Your task to perform on an android device: star an email in the gmail app Image 0: 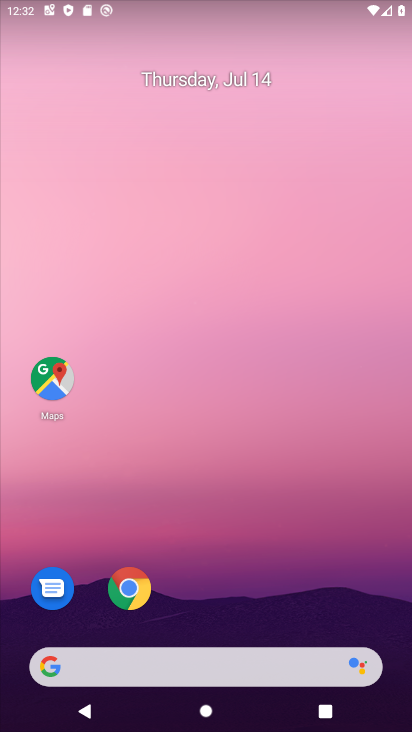
Step 0: drag from (193, 631) to (228, 138)
Your task to perform on an android device: star an email in the gmail app Image 1: 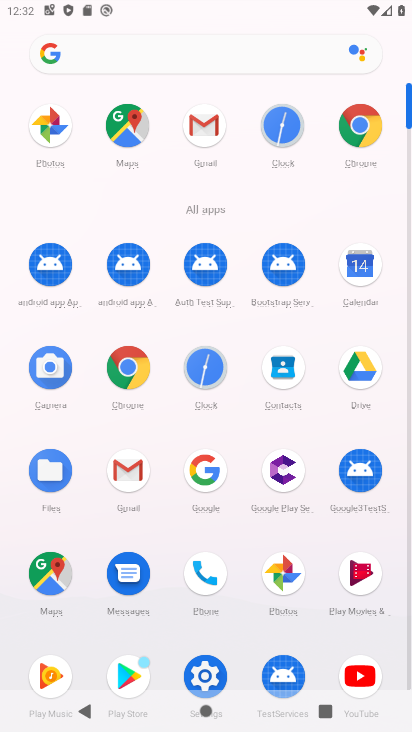
Step 1: click (122, 469)
Your task to perform on an android device: star an email in the gmail app Image 2: 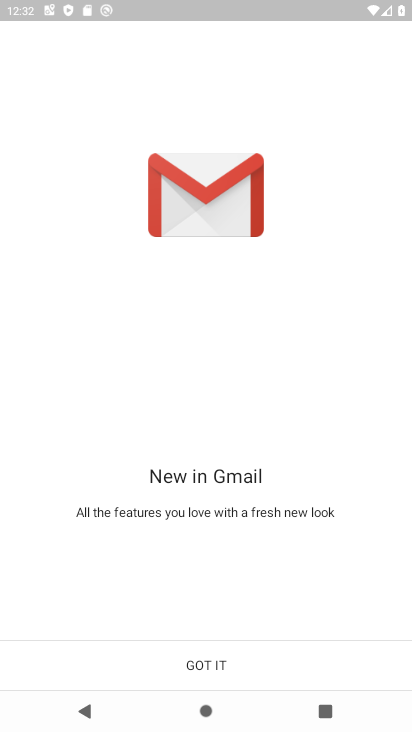
Step 2: click (237, 648)
Your task to perform on an android device: star an email in the gmail app Image 3: 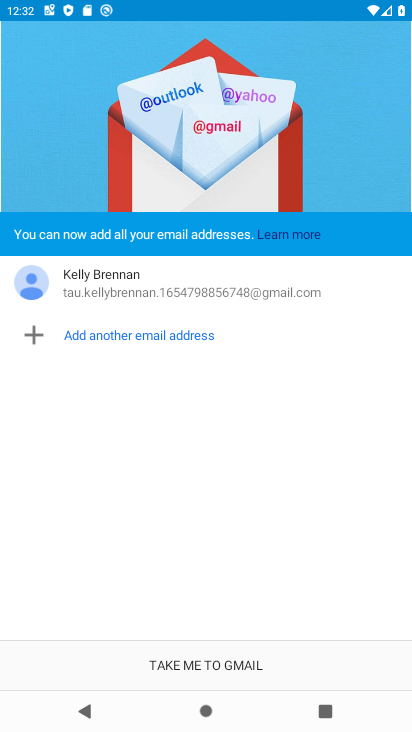
Step 3: click (236, 664)
Your task to perform on an android device: star an email in the gmail app Image 4: 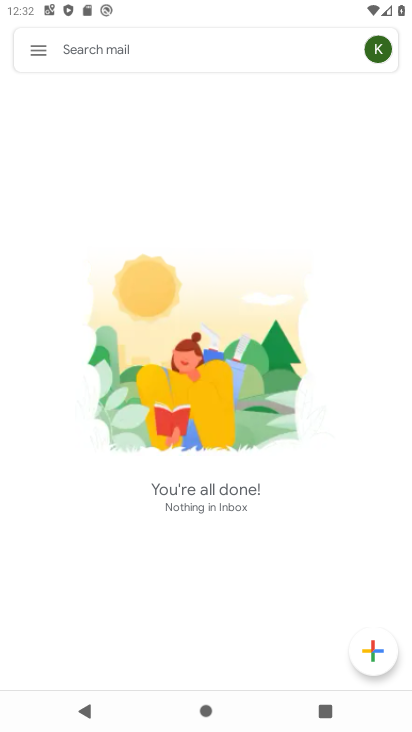
Step 4: click (36, 48)
Your task to perform on an android device: star an email in the gmail app Image 5: 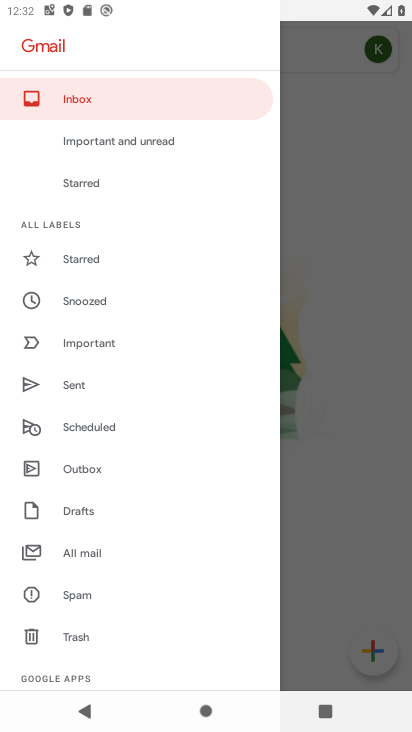
Step 5: click (102, 556)
Your task to perform on an android device: star an email in the gmail app Image 6: 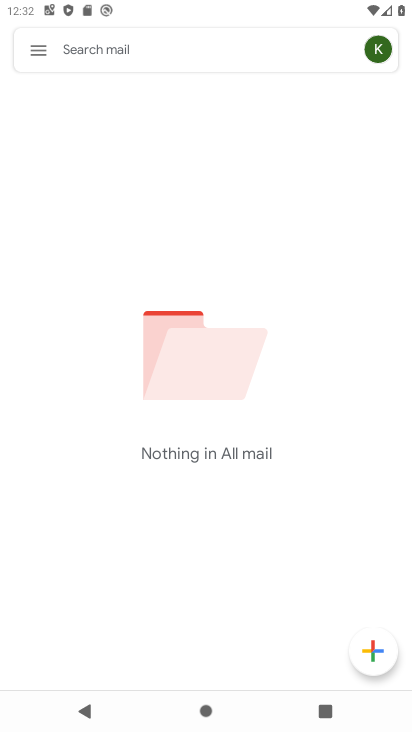
Step 6: task complete